Your task to perform on an android device: set default search engine in the chrome app Image 0: 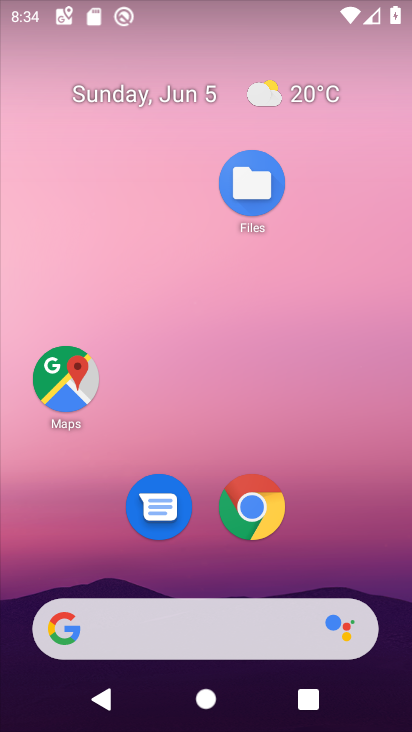
Step 0: click (263, 507)
Your task to perform on an android device: set default search engine in the chrome app Image 1: 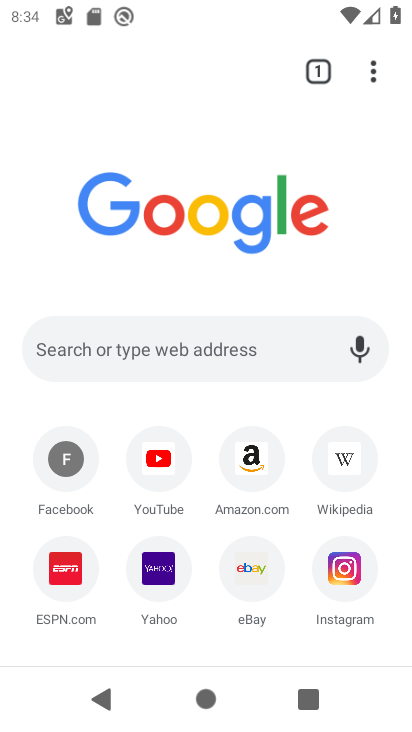
Step 1: click (370, 62)
Your task to perform on an android device: set default search engine in the chrome app Image 2: 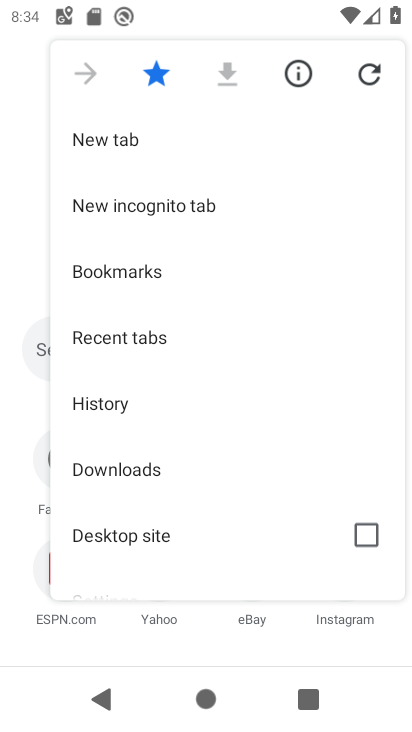
Step 2: drag from (223, 473) to (205, 140)
Your task to perform on an android device: set default search engine in the chrome app Image 3: 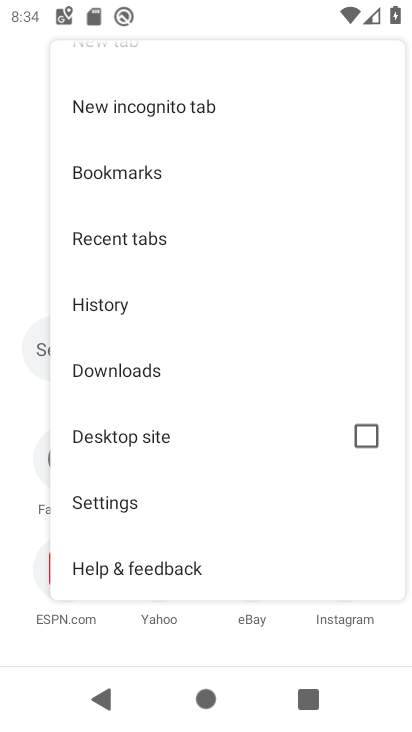
Step 3: click (124, 512)
Your task to perform on an android device: set default search engine in the chrome app Image 4: 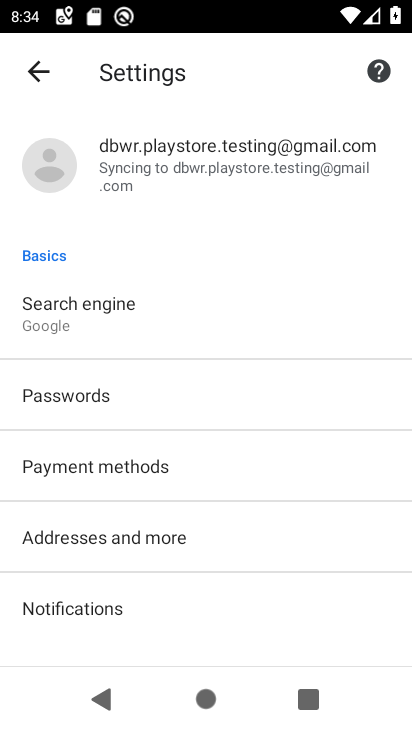
Step 4: click (84, 330)
Your task to perform on an android device: set default search engine in the chrome app Image 5: 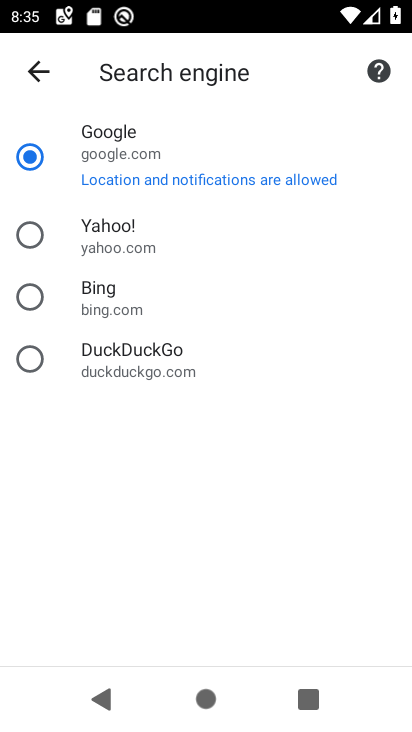
Step 5: task complete